Your task to perform on an android device: Empty the shopping cart on walmart.com. Add "asus zenbook" to the cart on walmart.com, then select checkout. Image 0: 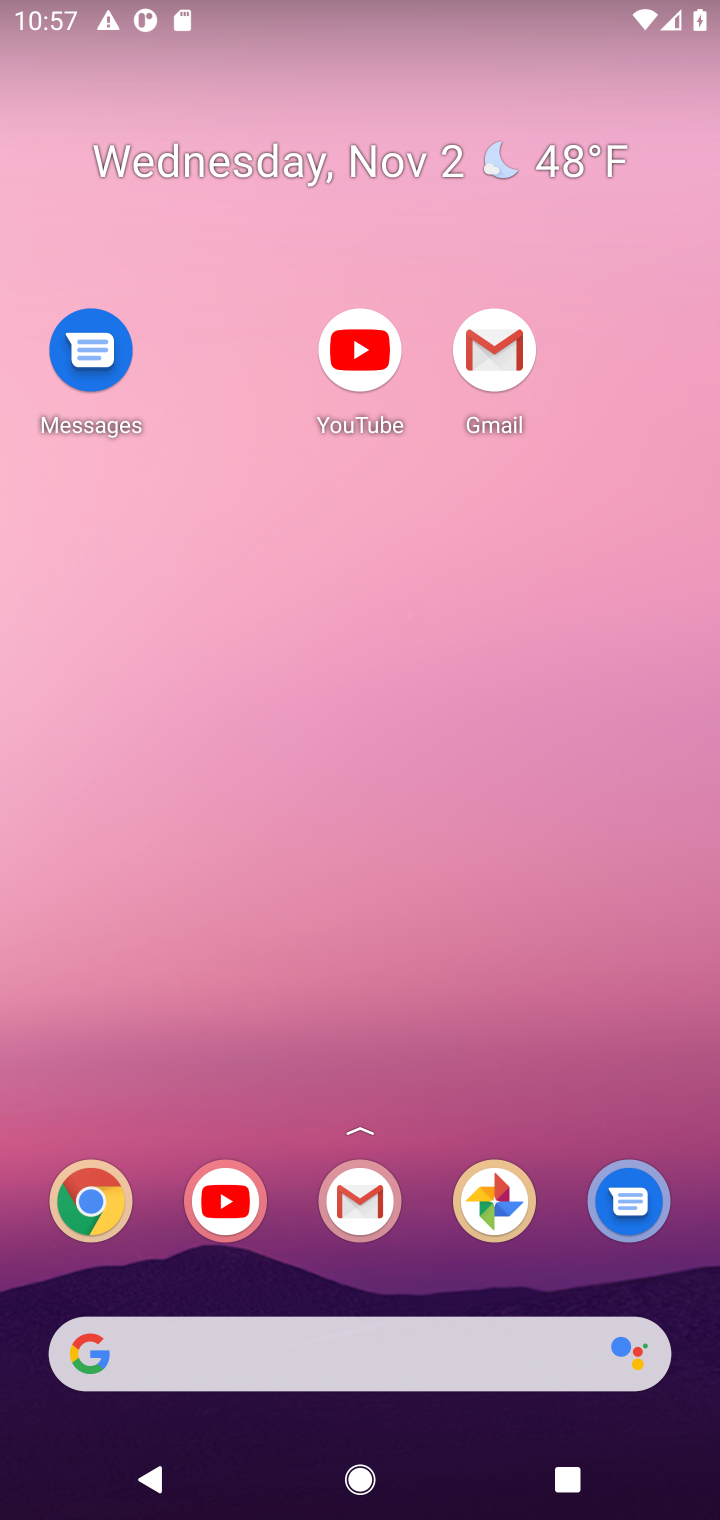
Step 0: drag from (437, 1276) to (419, 315)
Your task to perform on an android device: Empty the shopping cart on walmart.com. Add "asus zenbook" to the cart on walmart.com, then select checkout. Image 1: 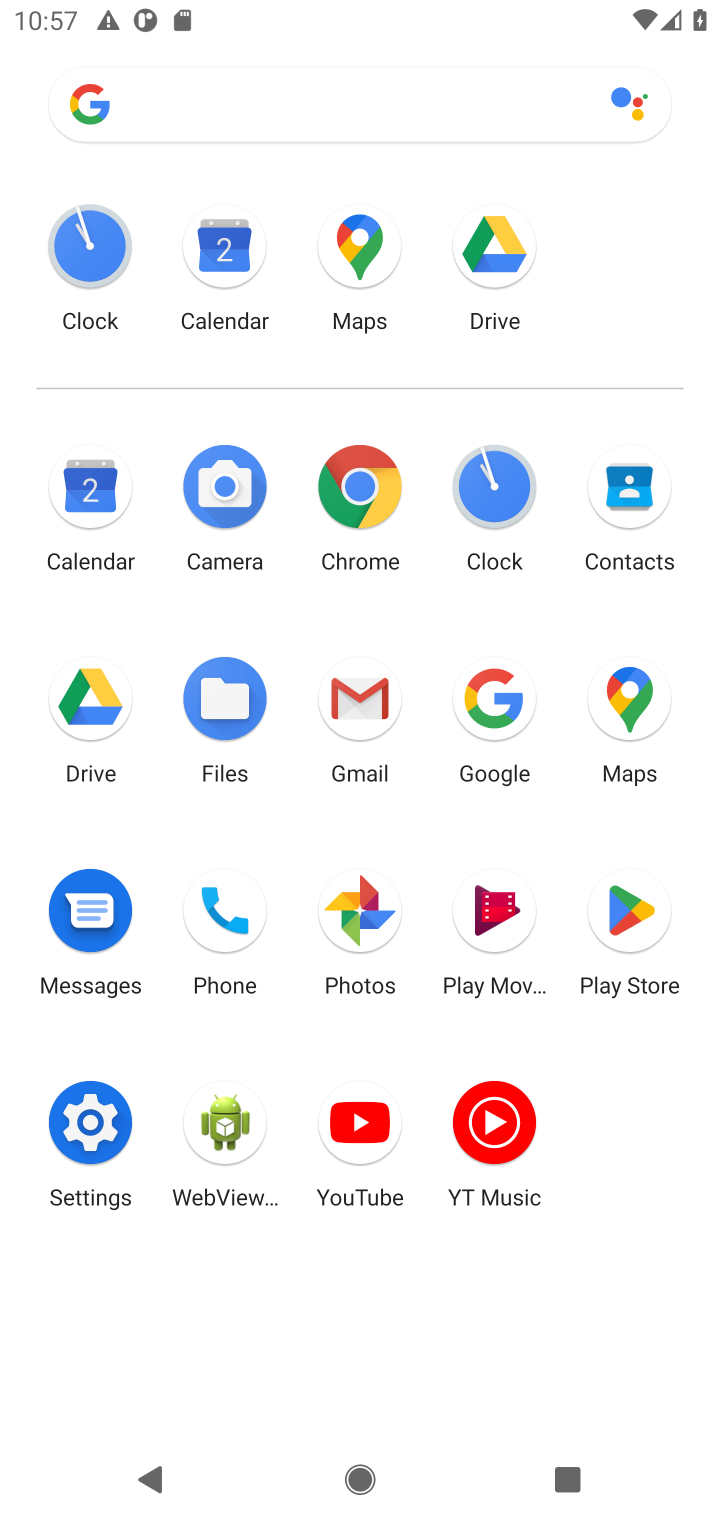
Step 1: click (356, 485)
Your task to perform on an android device: Empty the shopping cart on walmart.com. Add "asus zenbook" to the cart on walmart.com, then select checkout. Image 2: 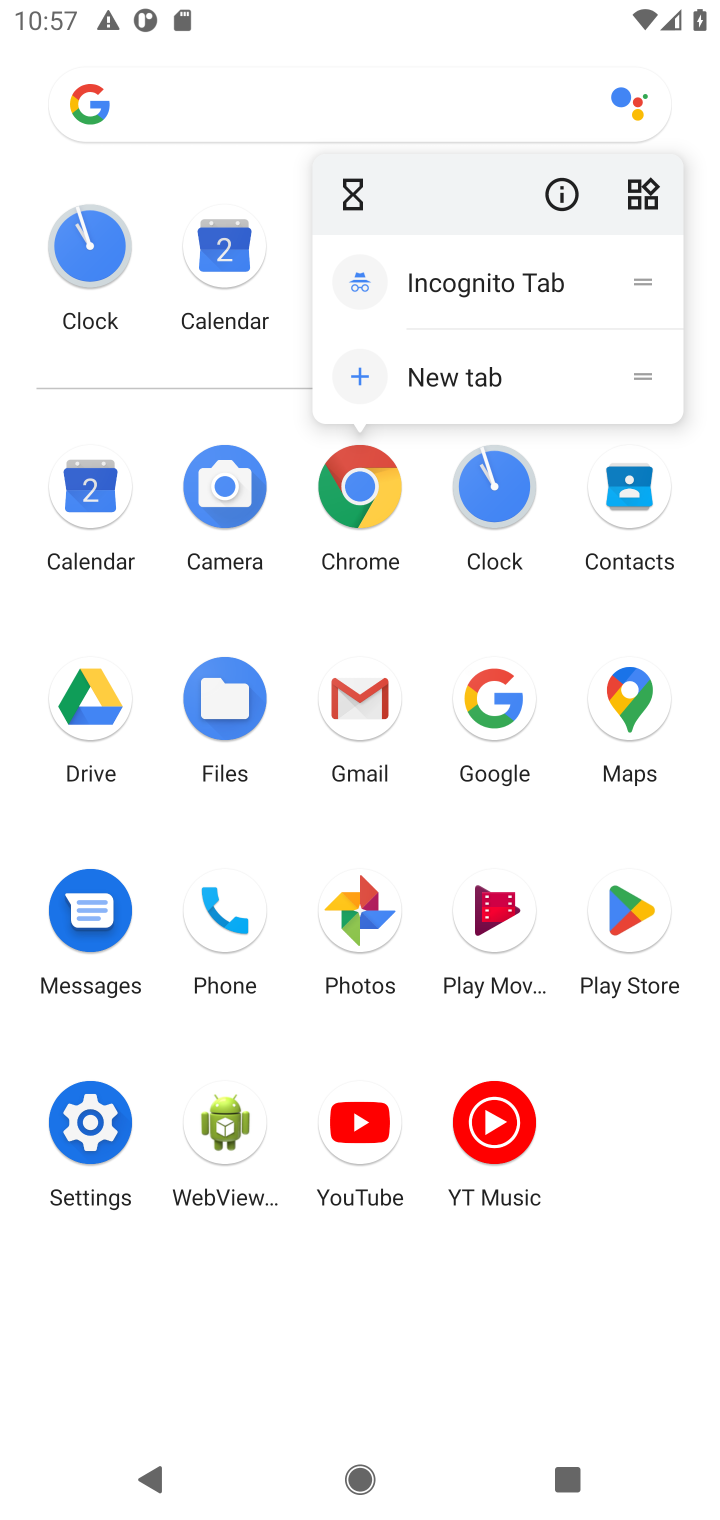
Step 2: click (356, 485)
Your task to perform on an android device: Empty the shopping cart on walmart.com. Add "asus zenbook" to the cart on walmart.com, then select checkout. Image 3: 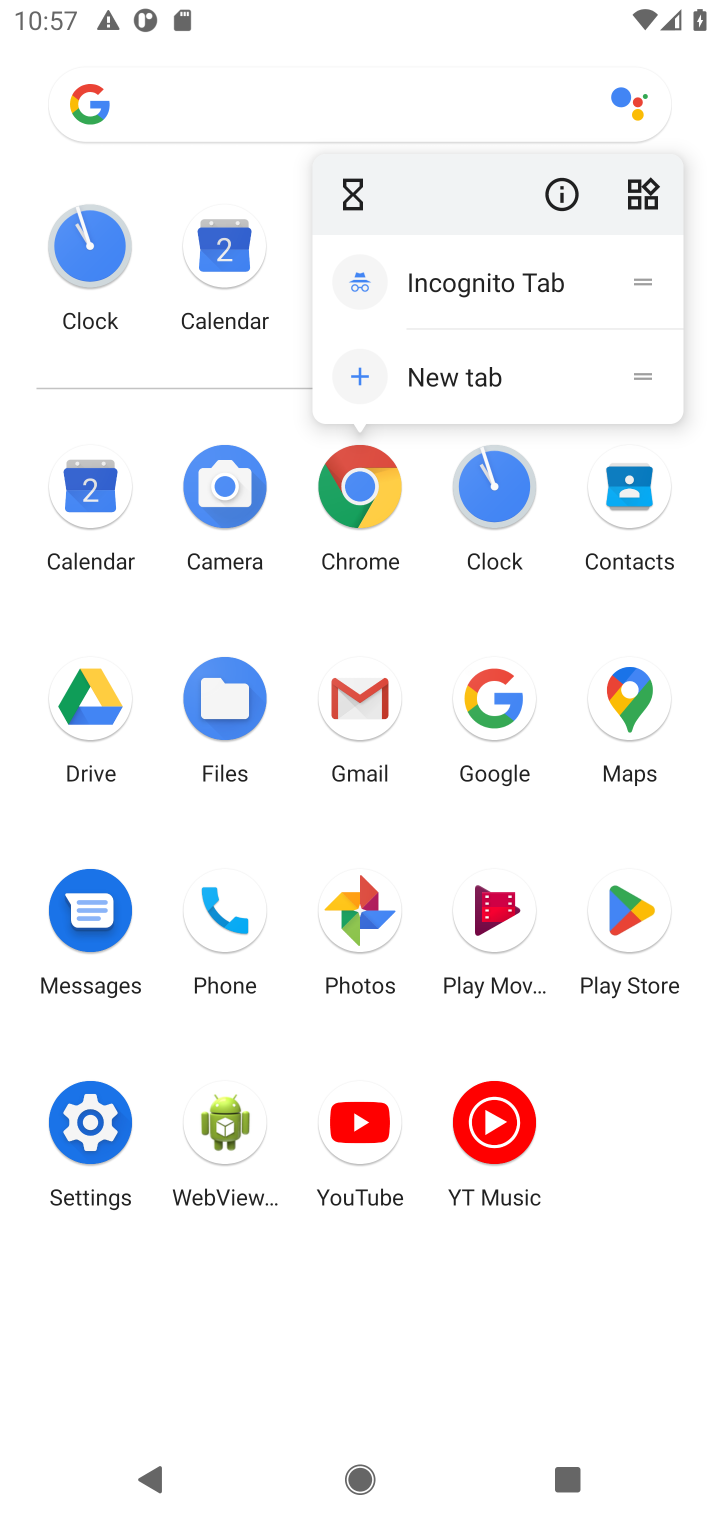
Step 3: click (368, 493)
Your task to perform on an android device: Empty the shopping cart on walmart.com. Add "asus zenbook" to the cart on walmart.com, then select checkout. Image 4: 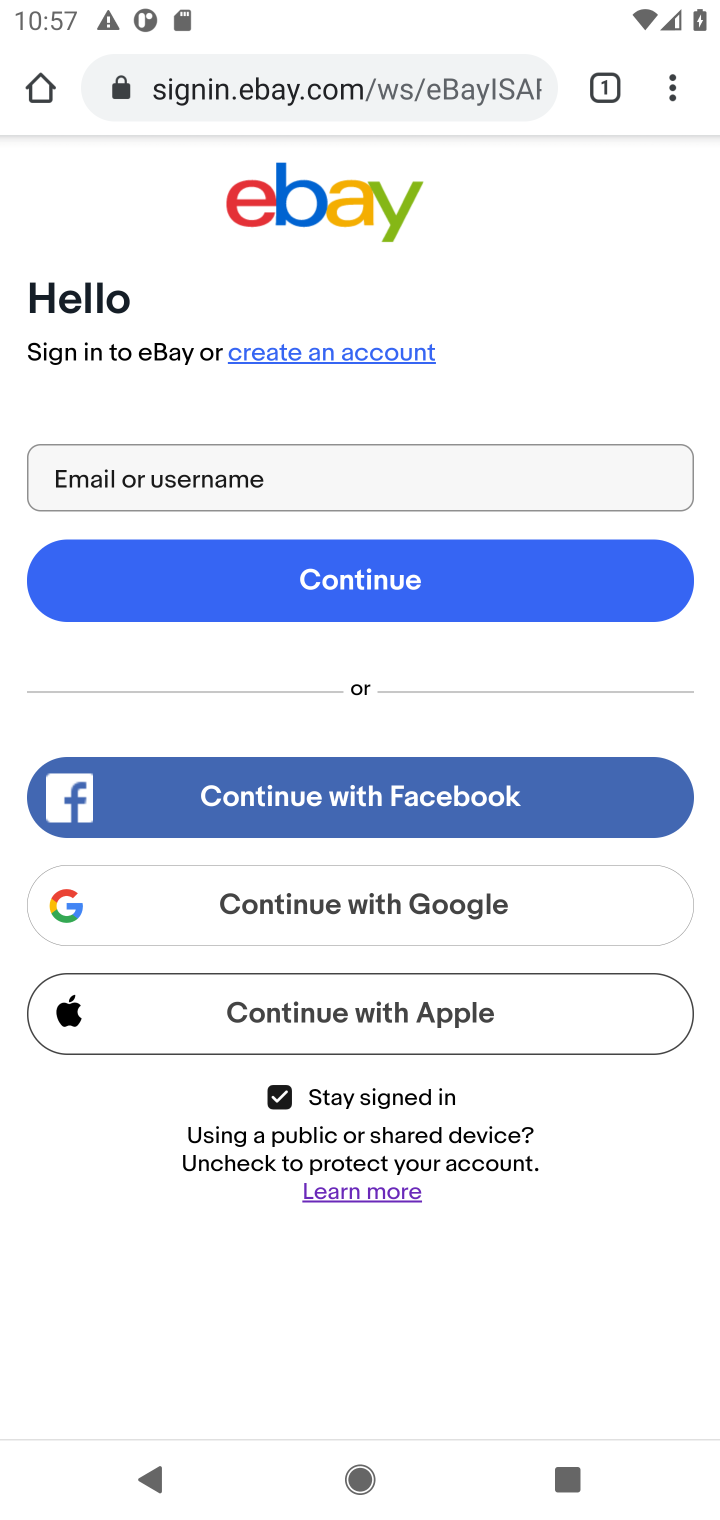
Step 4: click (370, 101)
Your task to perform on an android device: Empty the shopping cart on walmart.com. Add "asus zenbook" to the cart on walmart.com, then select checkout. Image 5: 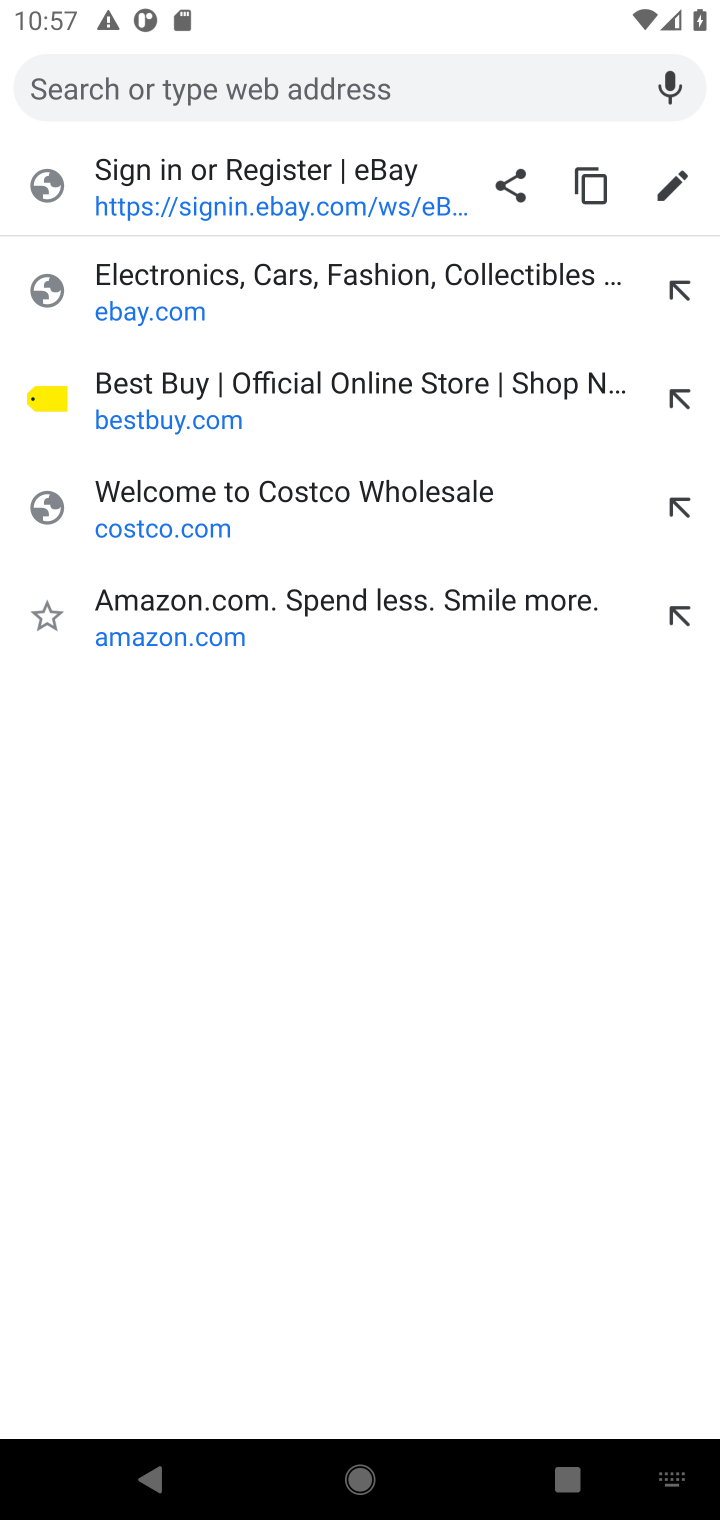
Step 5: type "walmart.com"
Your task to perform on an android device: Empty the shopping cart on walmart.com. Add "asus zenbook" to the cart on walmart.com, then select checkout. Image 6: 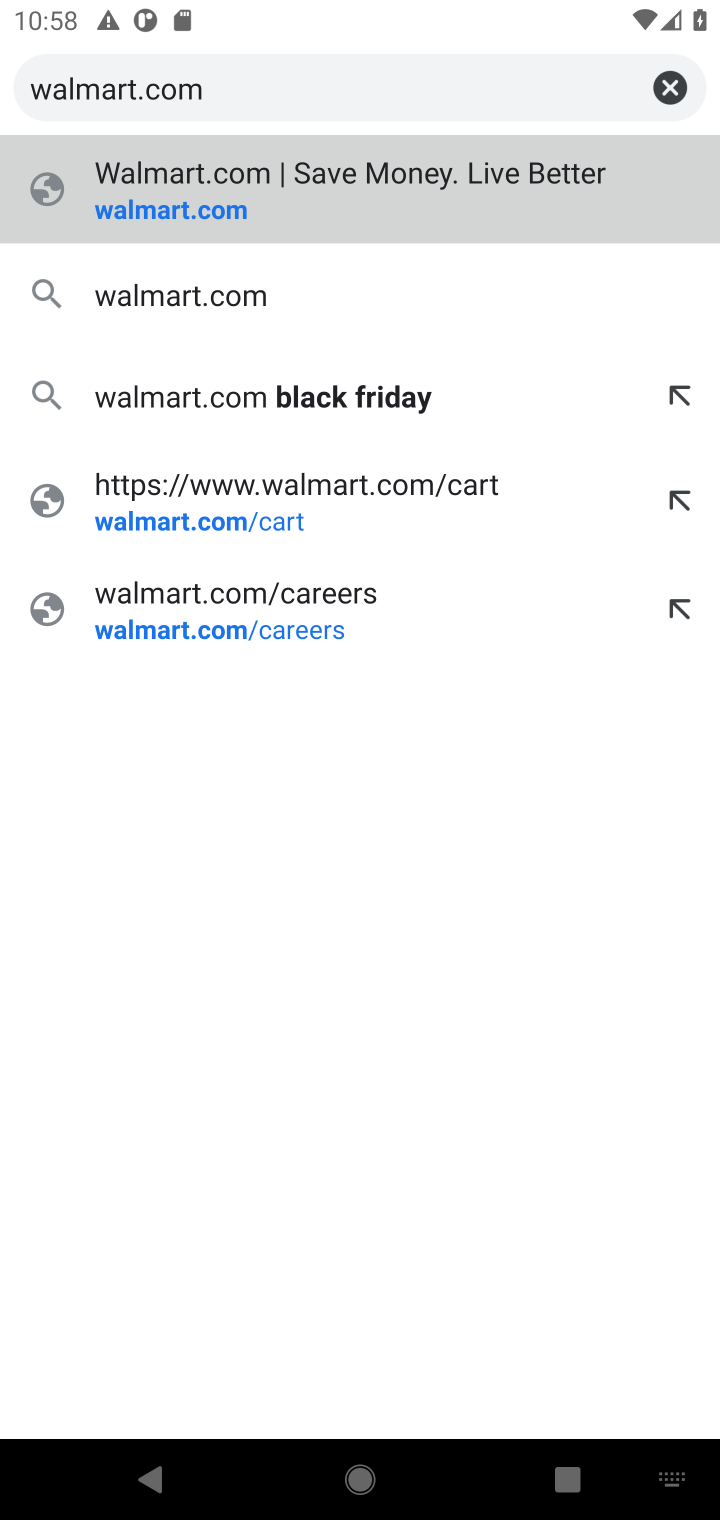
Step 6: press enter
Your task to perform on an android device: Empty the shopping cart on walmart.com. Add "asus zenbook" to the cart on walmart.com, then select checkout. Image 7: 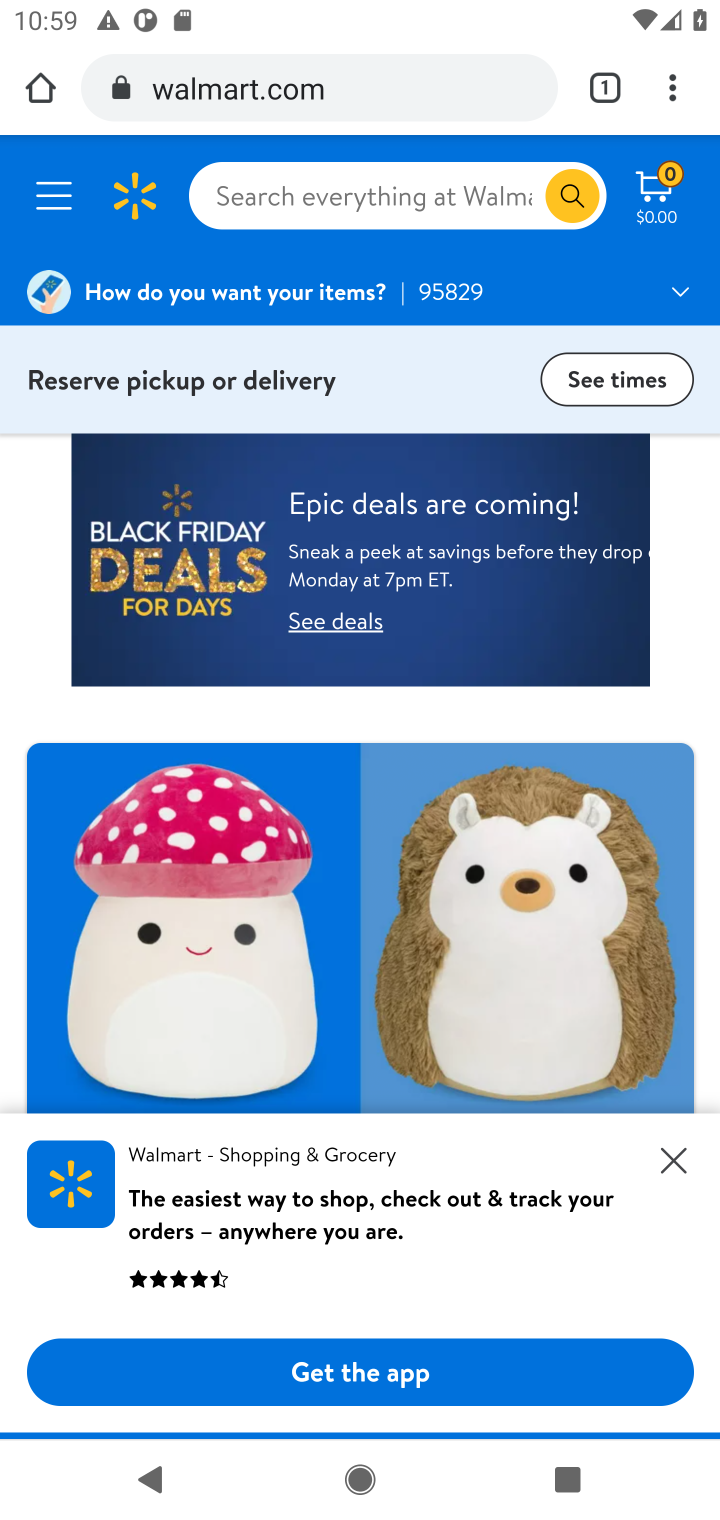
Step 7: click (657, 189)
Your task to perform on an android device: Empty the shopping cart on walmart.com. Add "asus zenbook" to the cart on walmart.com, then select checkout. Image 8: 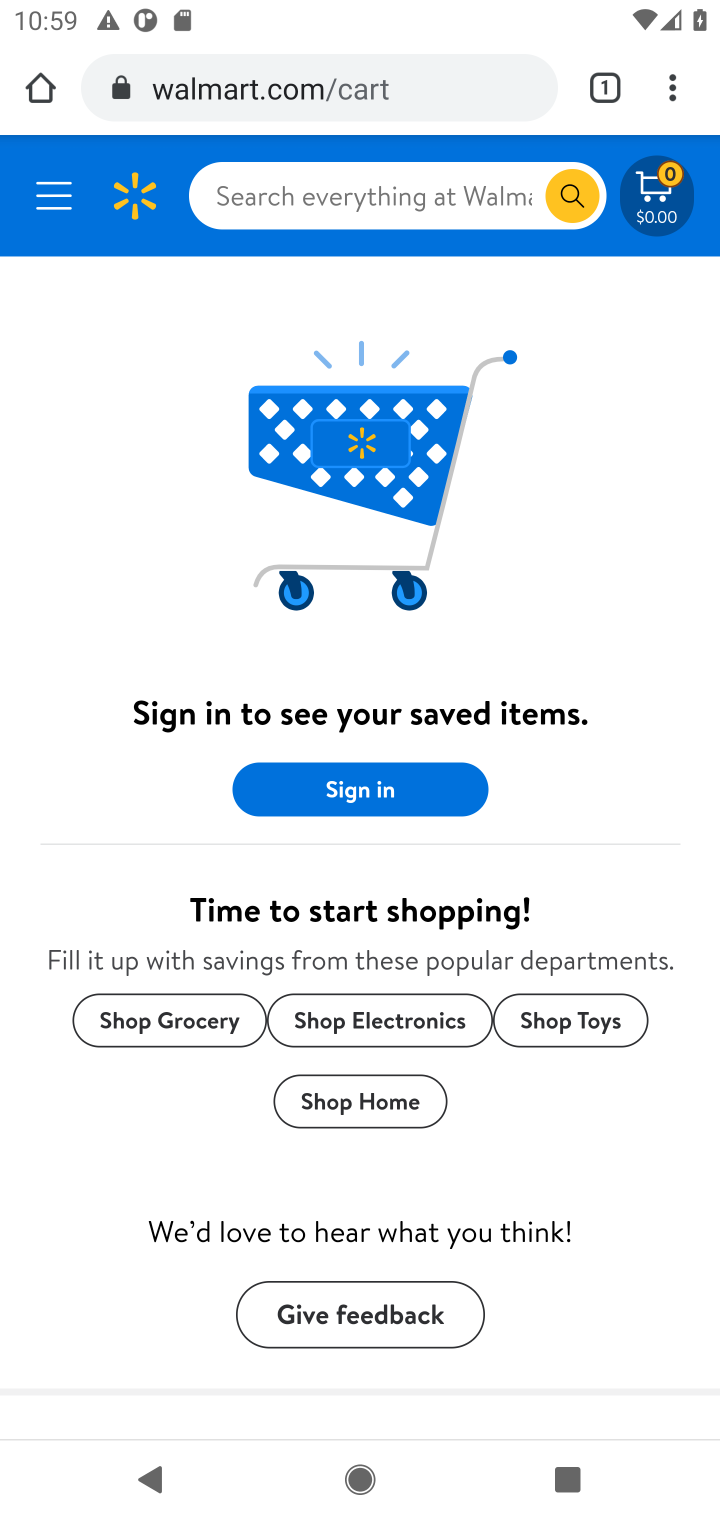
Step 8: click (316, 186)
Your task to perform on an android device: Empty the shopping cart on walmart.com. Add "asus zenbook" to the cart on walmart.com, then select checkout. Image 9: 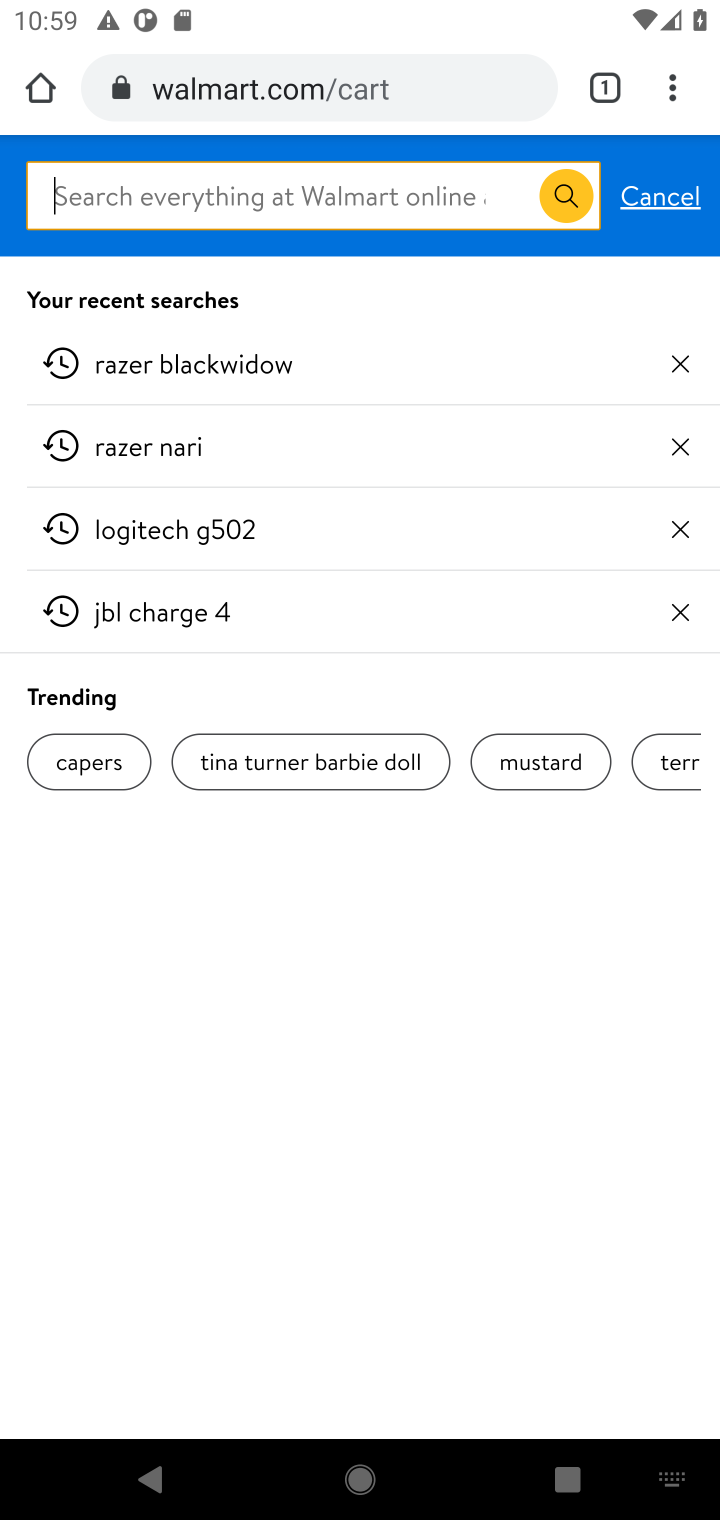
Step 9: type "asus zenbook"
Your task to perform on an android device: Empty the shopping cart on walmart.com. Add "asus zenbook" to the cart on walmart.com, then select checkout. Image 10: 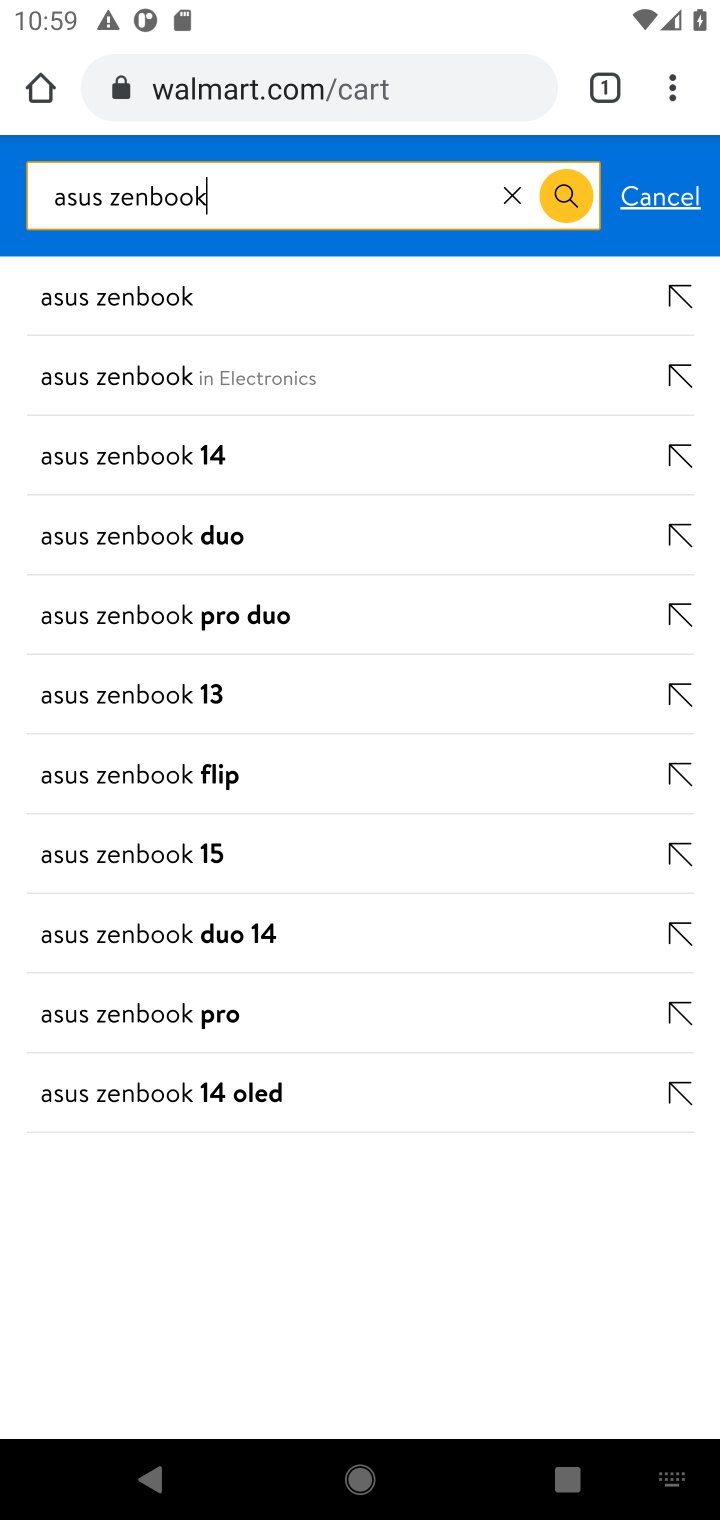
Step 10: press enter
Your task to perform on an android device: Empty the shopping cart on walmart.com. Add "asus zenbook" to the cart on walmart.com, then select checkout. Image 11: 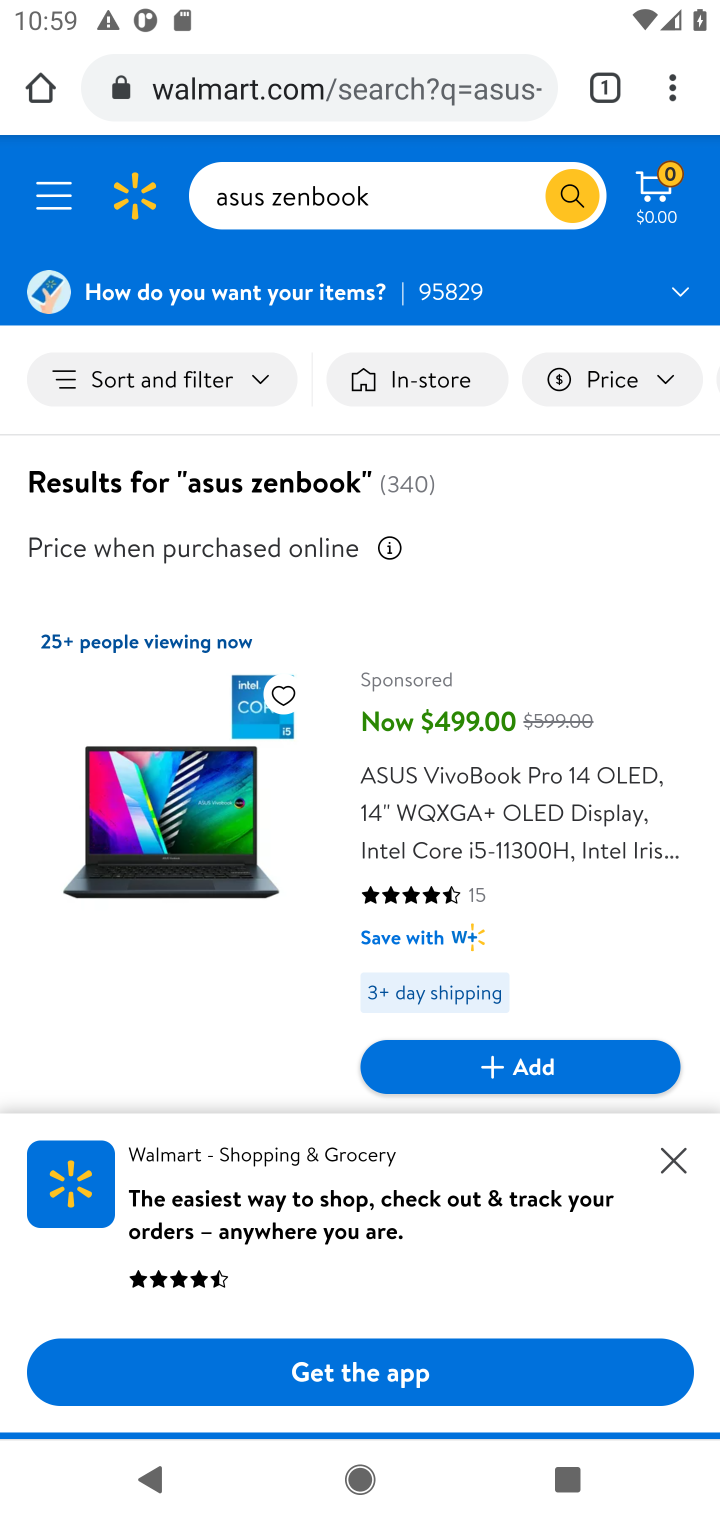
Step 11: drag from (502, 929) to (490, 284)
Your task to perform on an android device: Empty the shopping cart on walmart.com. Add "asus zenbook" to the cart on walmart.com, then select checkout. Image 12: 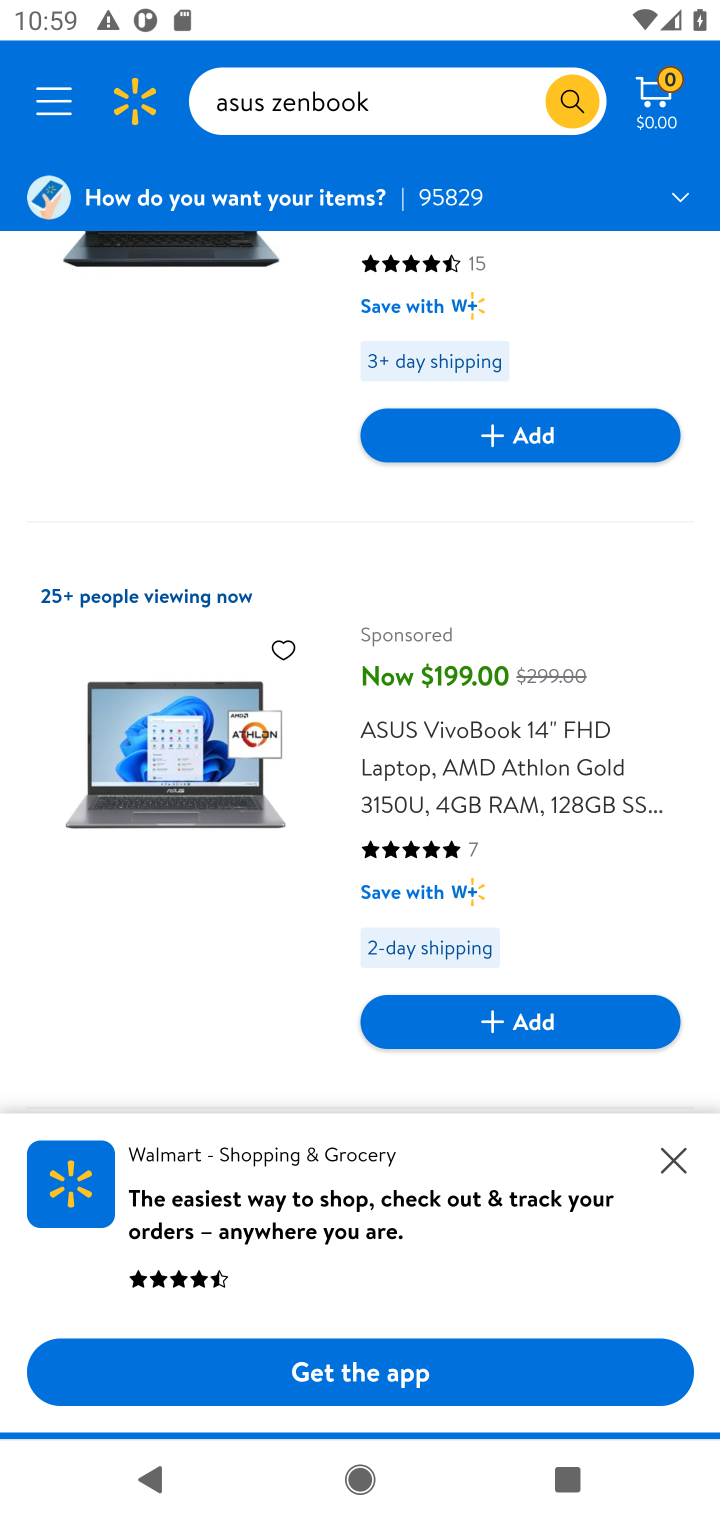
Step 12: drag from (474, 831) to (453, 188)
Your task to perform on an android device: Empty the shopping cart on walmart.com. Add "asus zenbook" to the cart on walmart.com, then select checkout. Image 13: 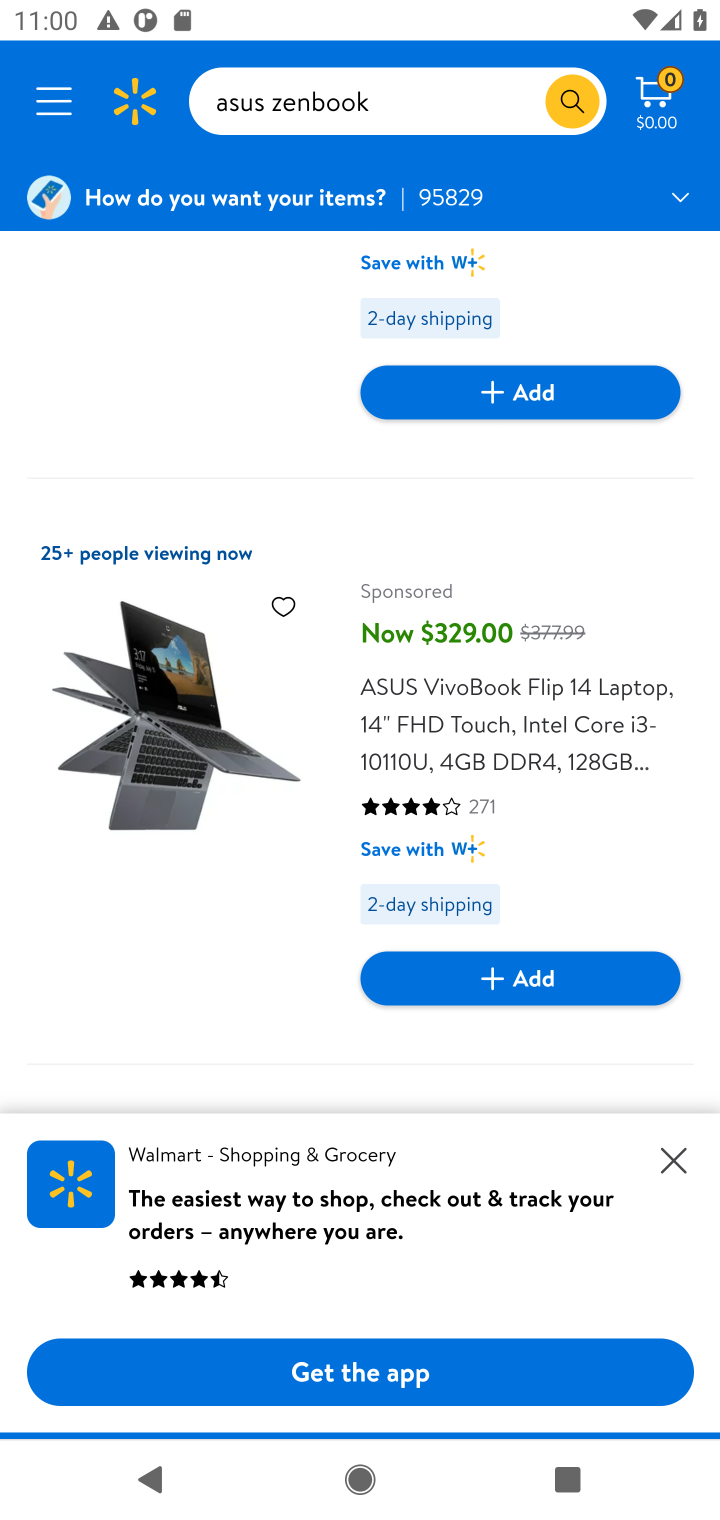
Step 13: drag from (473, 865) to (459, 246)
Your task to perform on an android device: Empty the shopping cart on walmart.com. Add "asus zenbook" to the cart on walmart.com, then select checkout. Image 14: 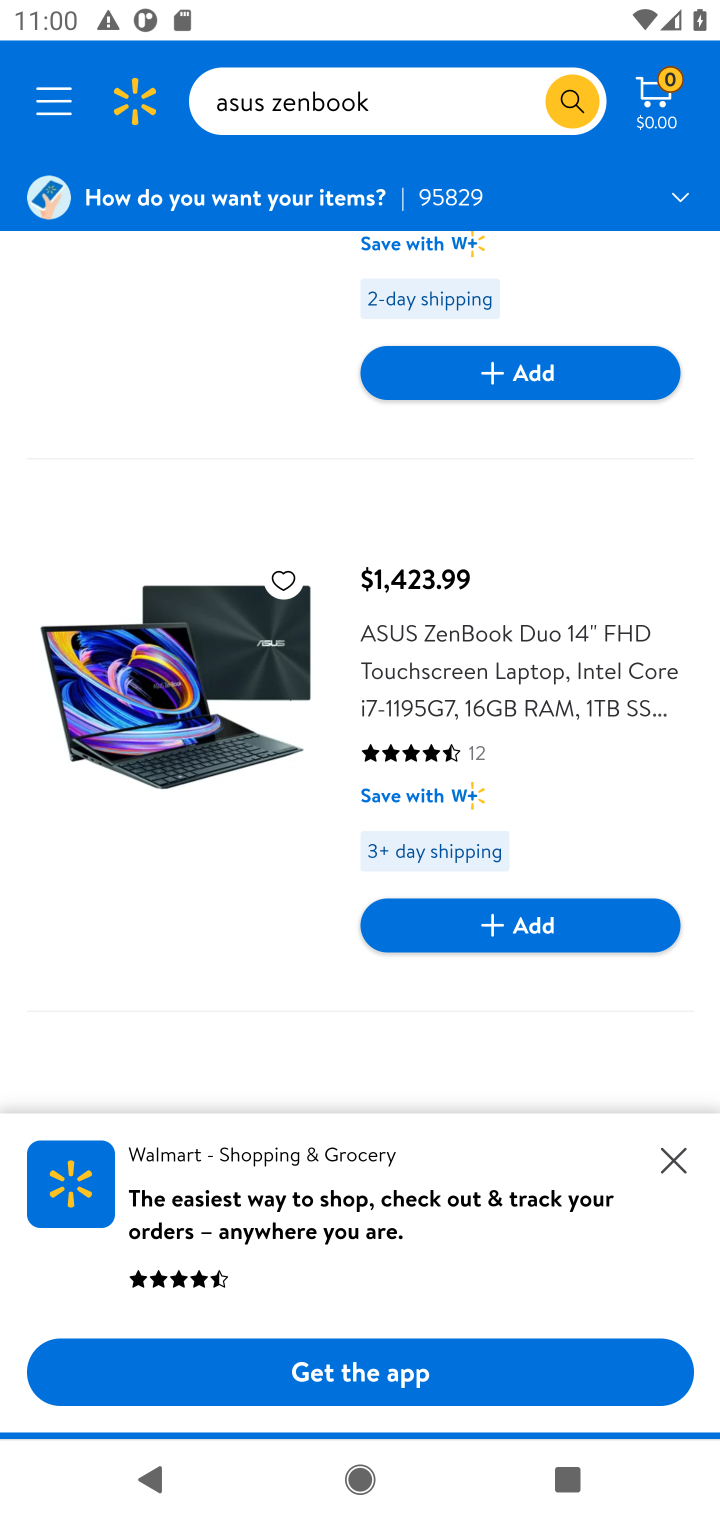
Step 14: click (519, 917)
Your task to perform on an android device: Empty the shopping cart on walmart.com. Add "asus zenbook" to the cart on walmart.com, then select checkout. Image 15: 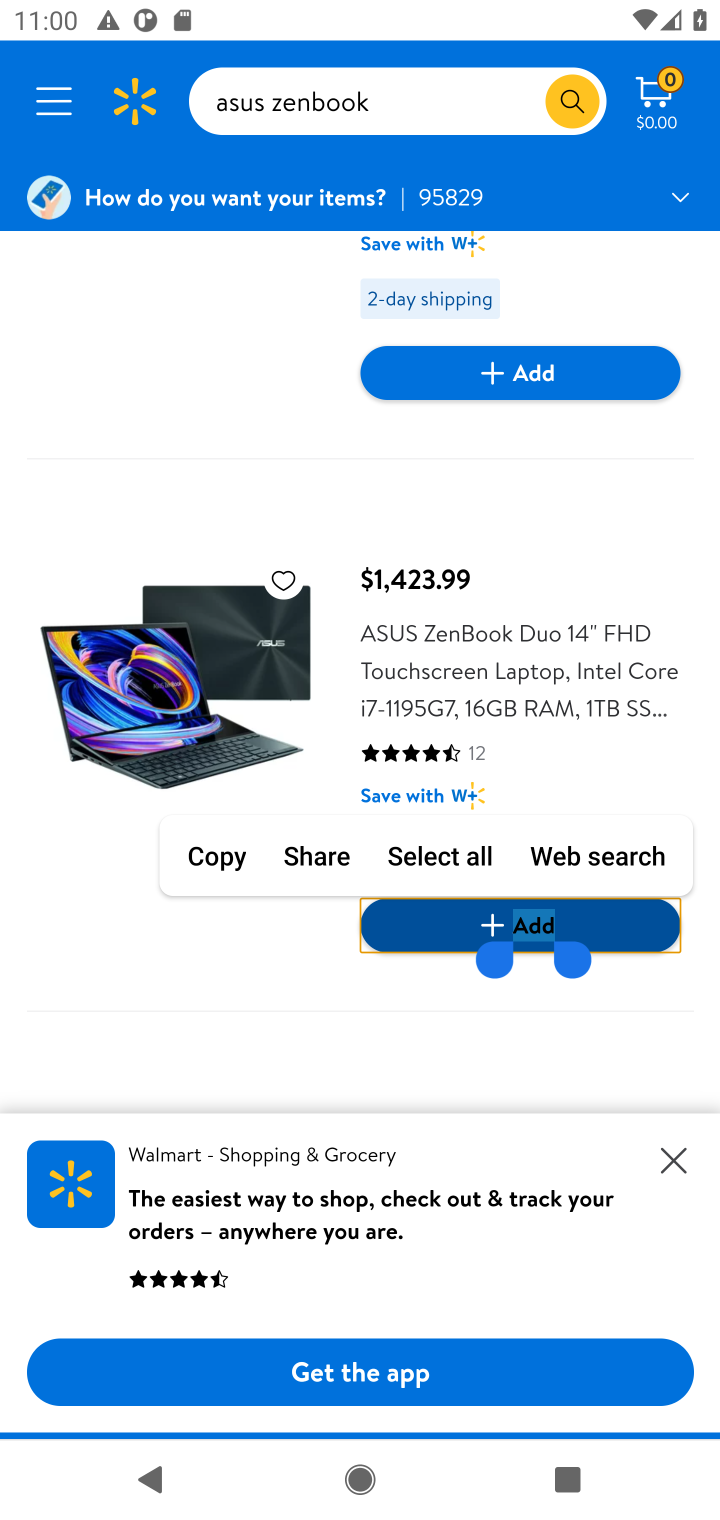
Step 15: click (606, 932)
Your task to perform on an android device: Empty the shopping cart on walmart.com. Add "asus zenbook" to the cart on walmart.com, then select checkout. Image 16: 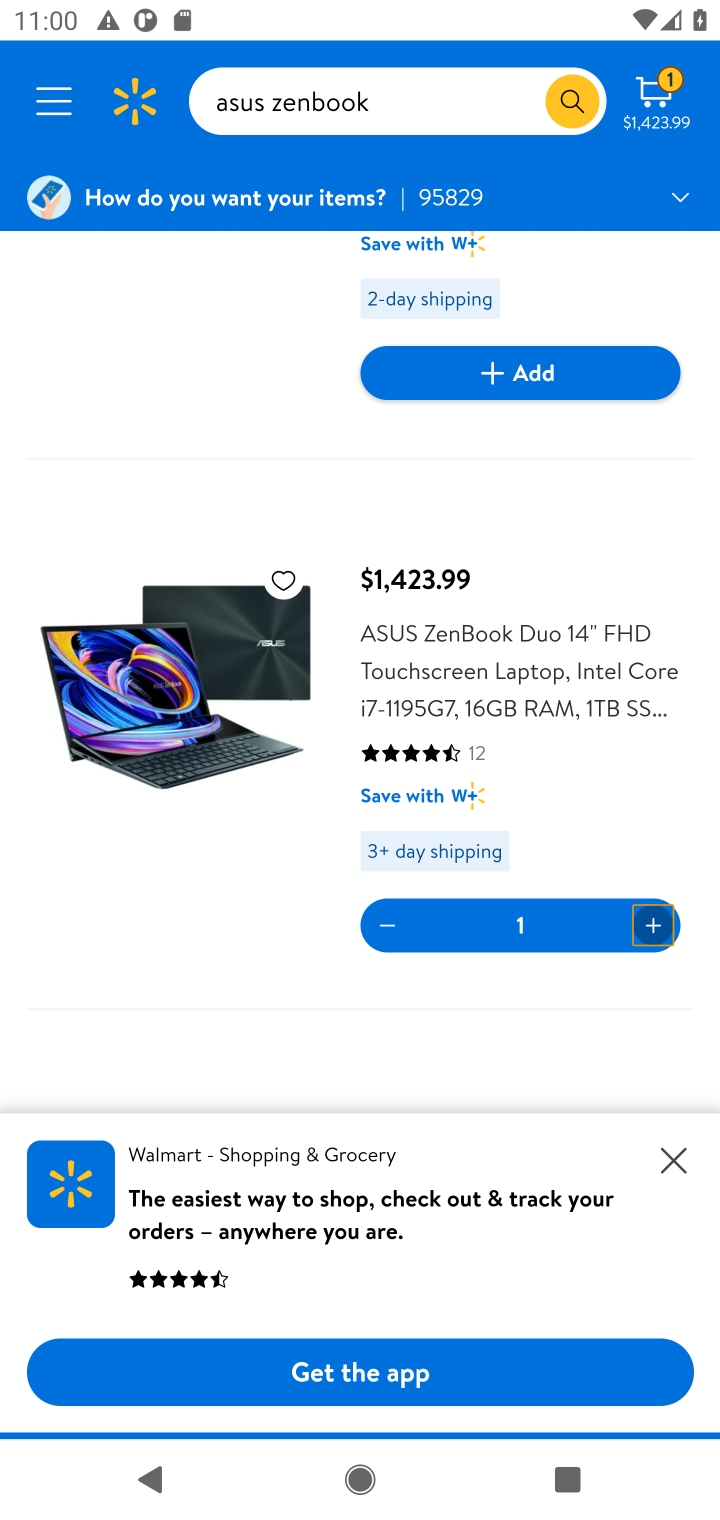
Step 16: click (658, 105)
Your task to perform on an android device: Empty the shopping cart on walmart.com. Add "asus zenbook" to the cart on walmart.com, then select checkout. Image 17: 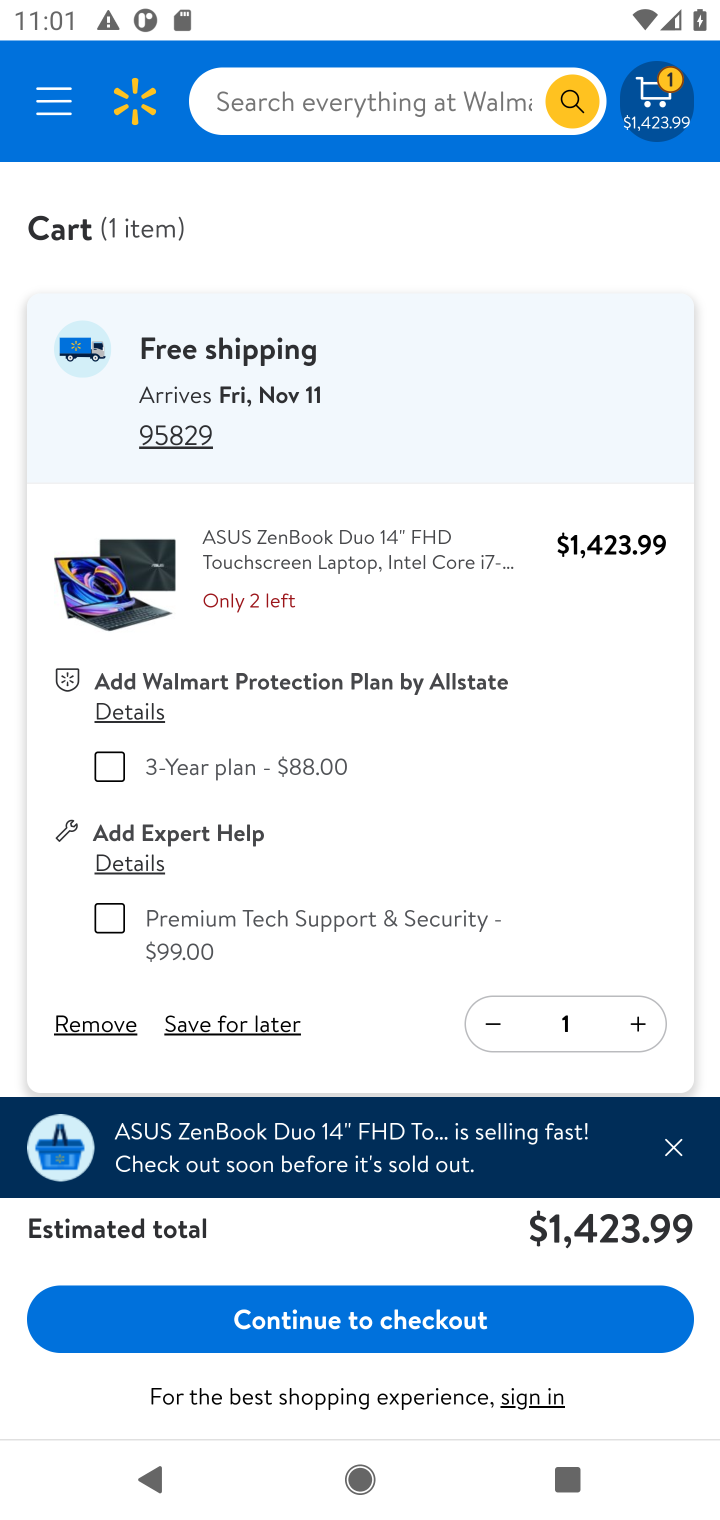
Step 17: click (345, 1328)
Your task to perform on an android device: Empty the shopping cart on walmart.com. Add "asus zenbook" to the cart on walmart.com, then select checkout. Image 18: 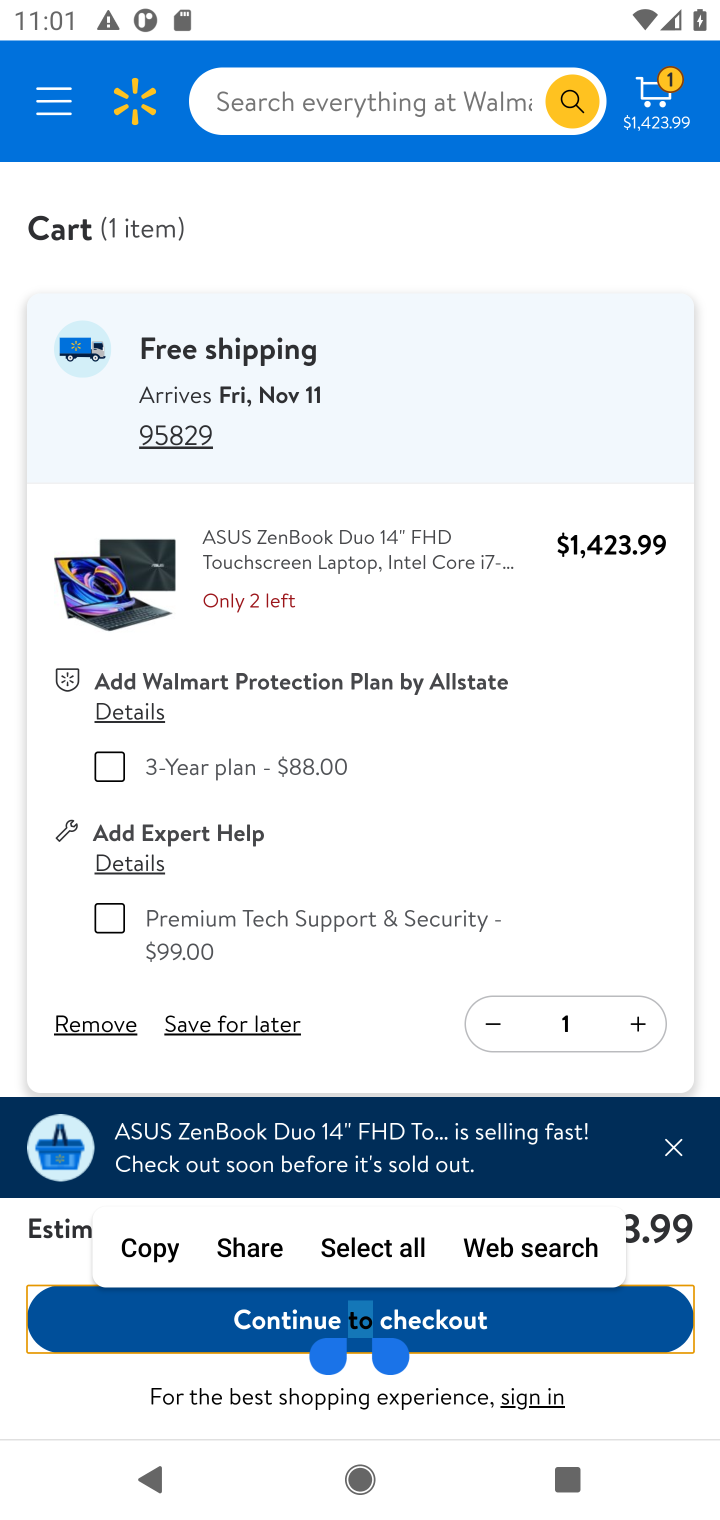
Step 18: click (490, 1309)
Your task to perform on an android device: Empty the shopping cart on walmart.com. Add "asus zenbook" to the cart on walmart.com, then select checkout. Image 19: 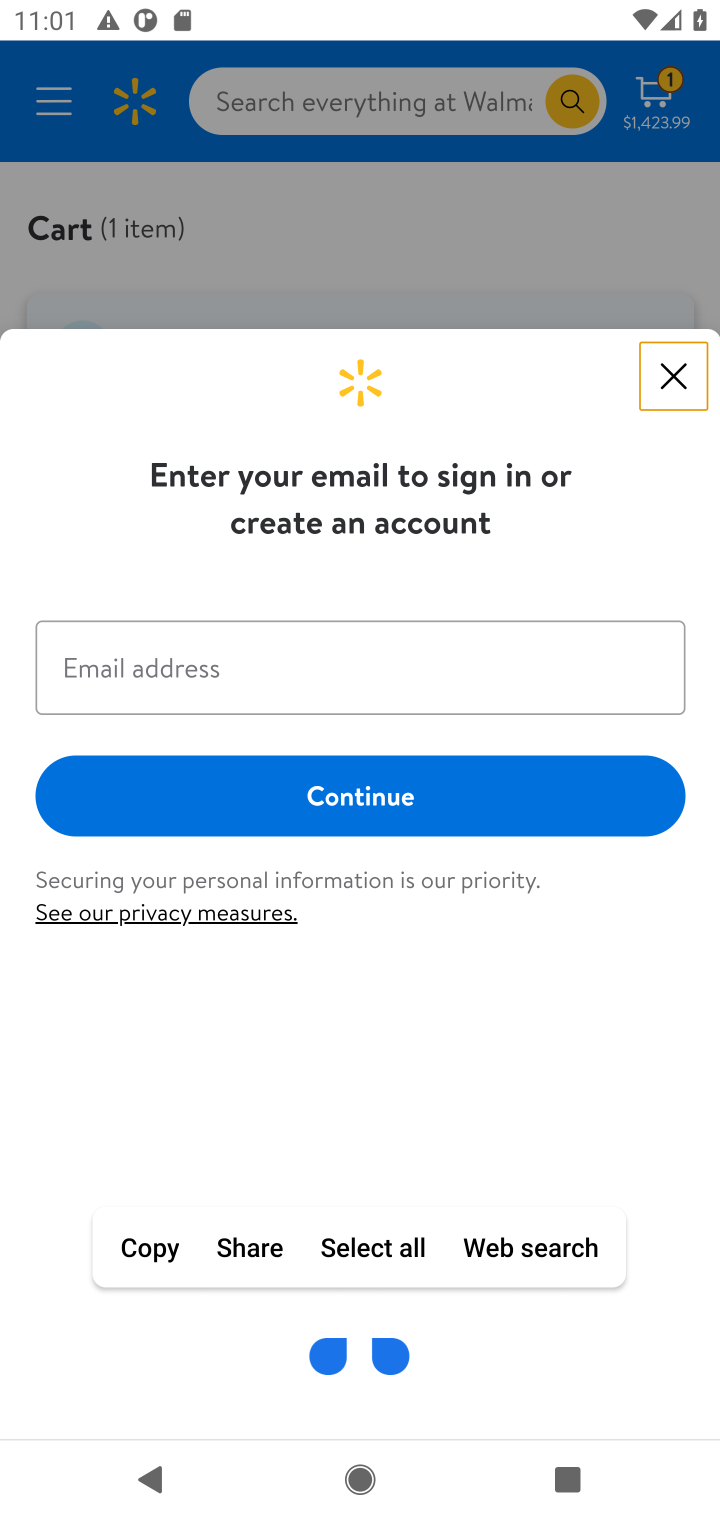
Step 19: task complete